Your task to perform on an android device: Open Wikipedia Image 0: 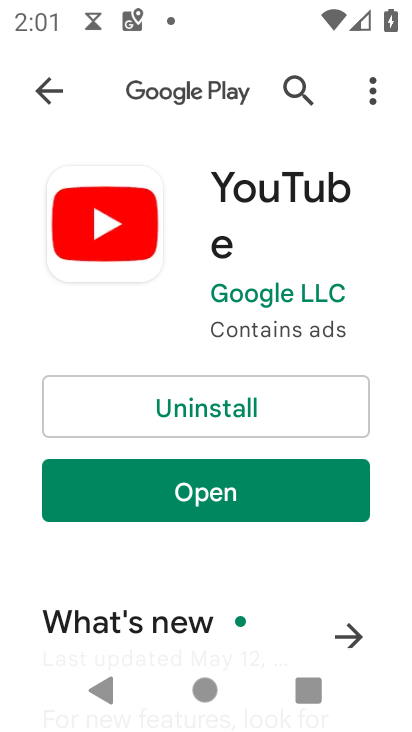
Step 0: press home button
Your task to perform on an android device: Open Wikipedia Image 1: 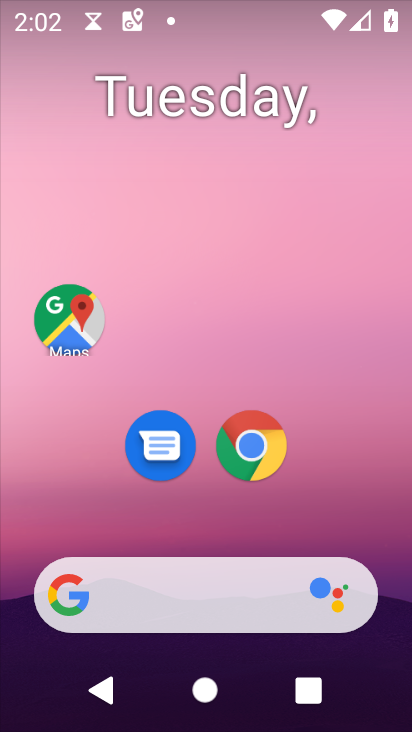
Step 1: drag from (280, 471) to (257, 444)
Your task to perform on an android device: Open Wikipedia Image 2: 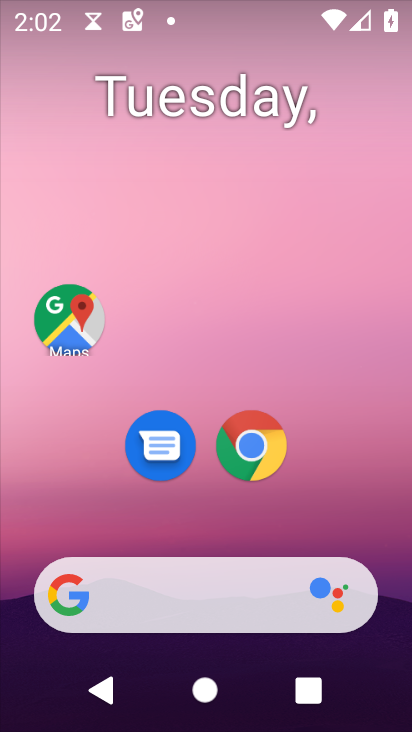
Step 2: click (257, 441)
Your task to perform on an android device: Open Wikipedia Image 3: 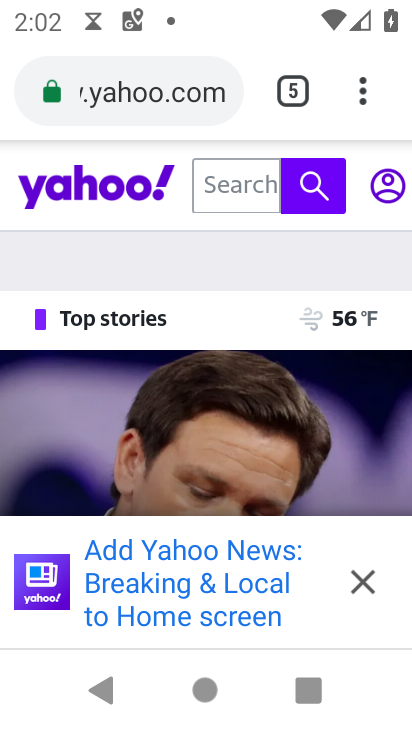
Step 3: click (144, 98)
Your task to perform on an android device: Open Wikipedia Image 4: 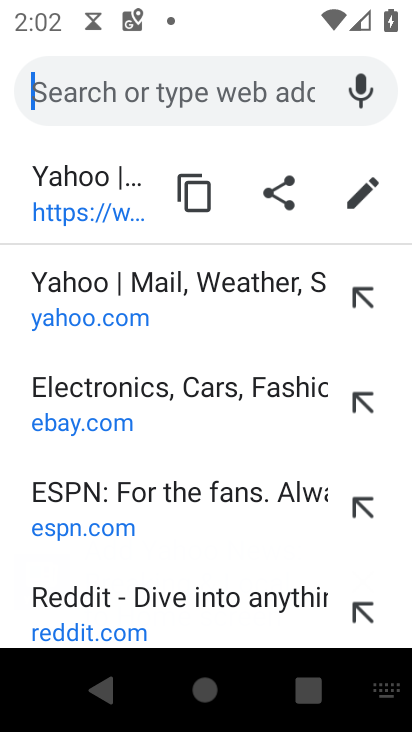
Step 4: type "wikipedia"
Your task to perform on an android device: Open Wikipedia Image 5: 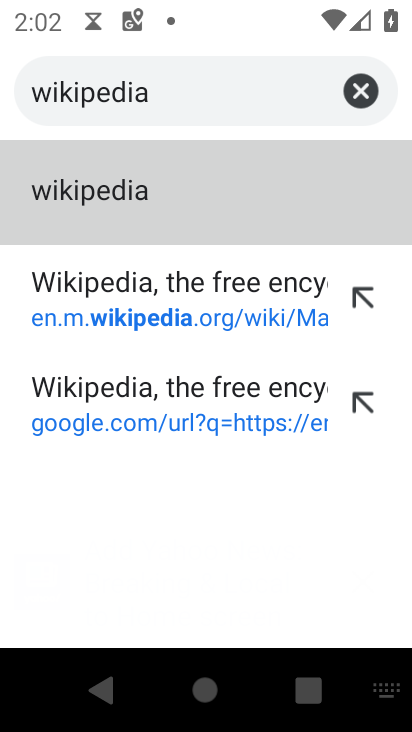
Step 5: click (133, 196)
Your task to perform on an android device: Open Wikipedia Image 6: 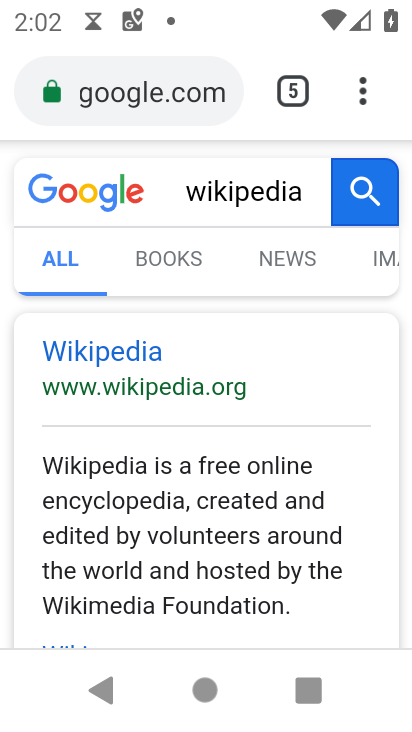
Step 6: task complete